Your task to perform on an android device: Is it going to rain this weekend? Image 0: 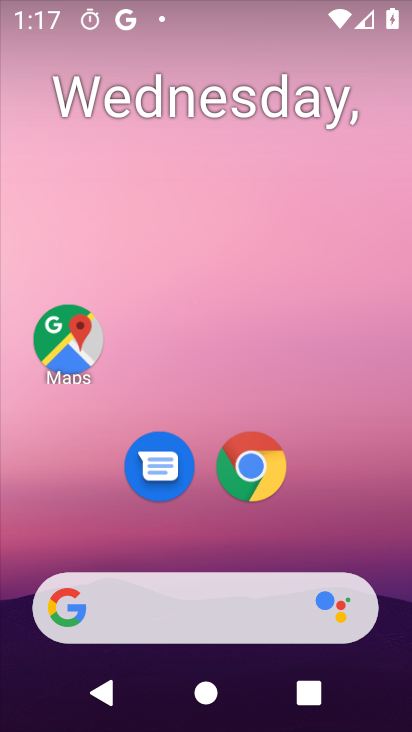
Step 0: drag from (312, 458) to (280, 21)
Your task to perform on an android device: Is it going to rain this weekend? Image 1: 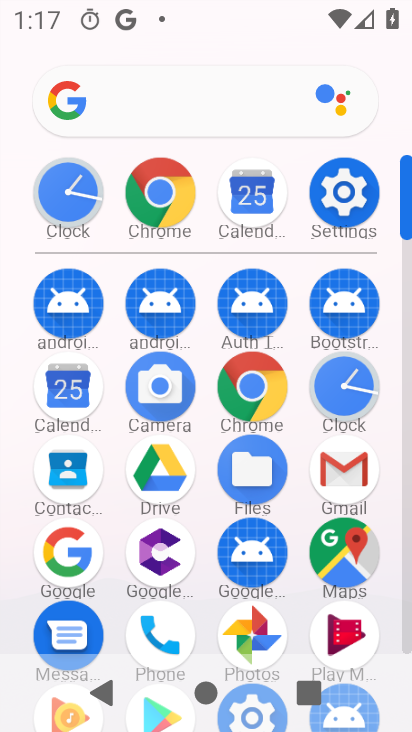
Step 1: click (168, 438)
Your task to perform on an android device: Is it going to rain this weekend? Image 2: 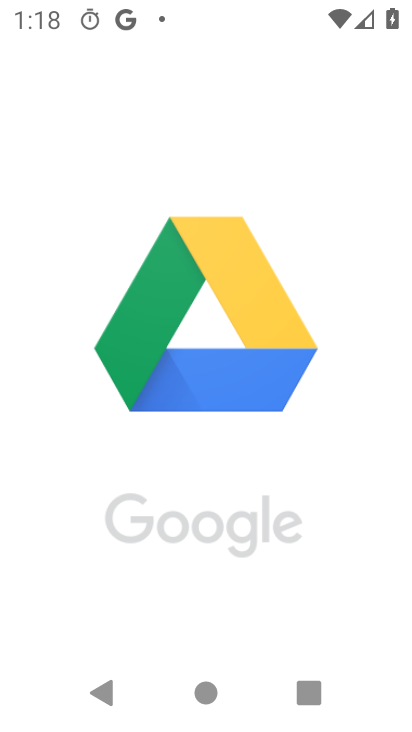
Step 2: press home button
Your task to perform on an android device: Is it going to rain this weekend? Image 3: 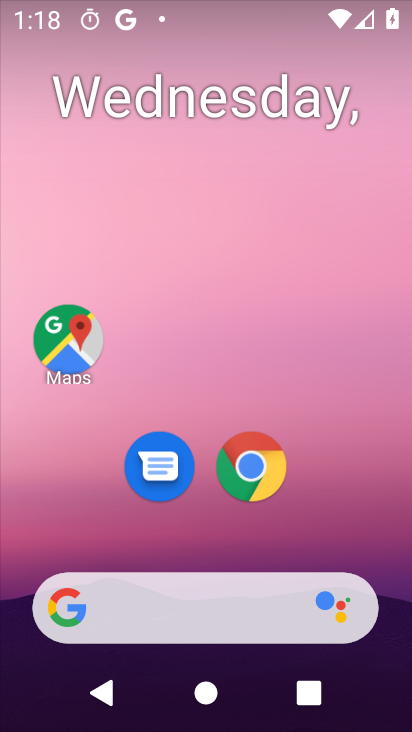
Step 3: click (103, 581)
Your task to perform on an android device: Is it going to rain this weekend? Image 4: 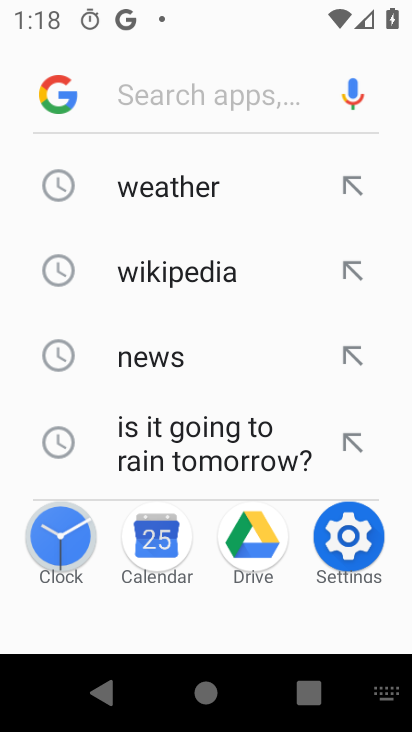
Step 4: click (173, 202)
Your task to perform on an android device: Is it going to rain this weekend? Image 5: 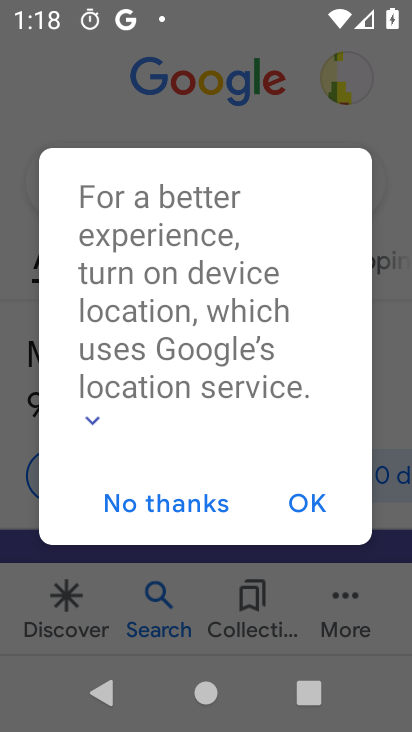
Step 5: click (286, 500)
Your task to perform on an android device: Is it going to rain this weekend? Image 6: 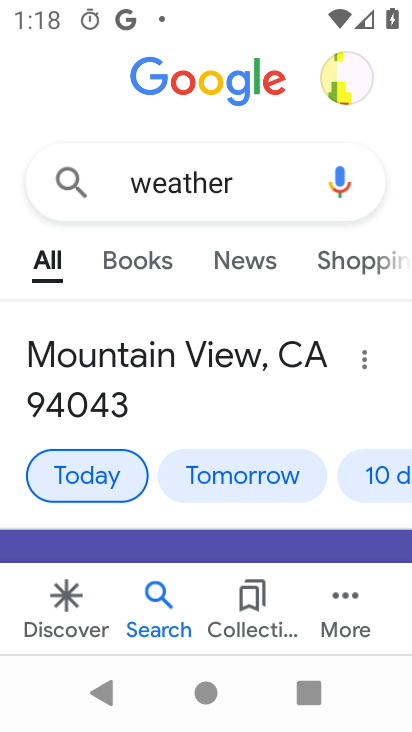
Step 6: drag from (318, 494) to (317, 237)
Your task to perform on an android device: Is it going to rain this weekend? Image 7: 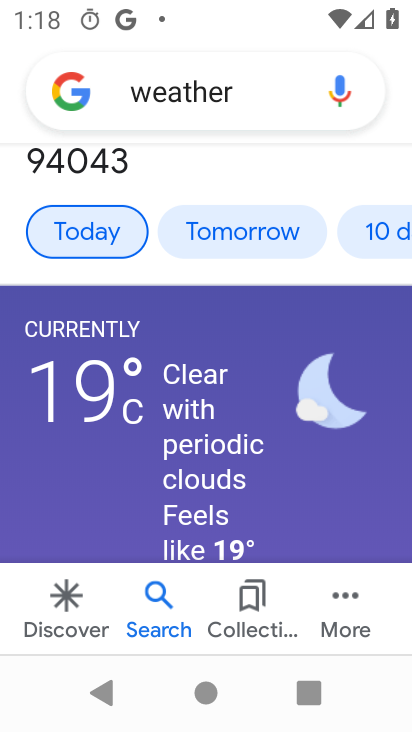
Step 7: drag from (379, 226) to (216, 225)
Your task to perform on an android device: Is it going to rain this weekend? Image 8: 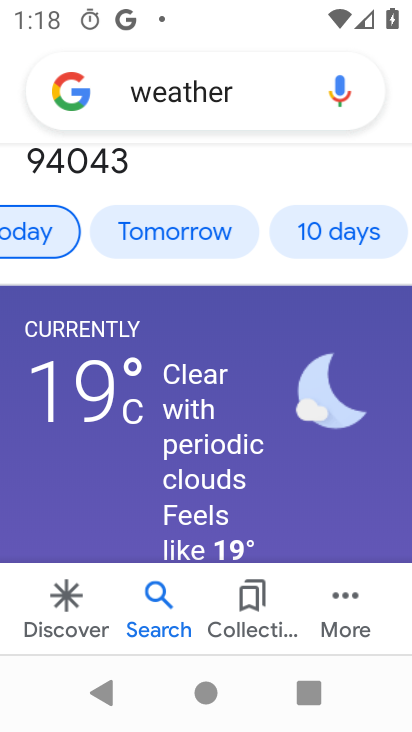
Step 8: click (334, 235)
Your task to perform on an android device: Is it going to rain this weekend? Image 9: 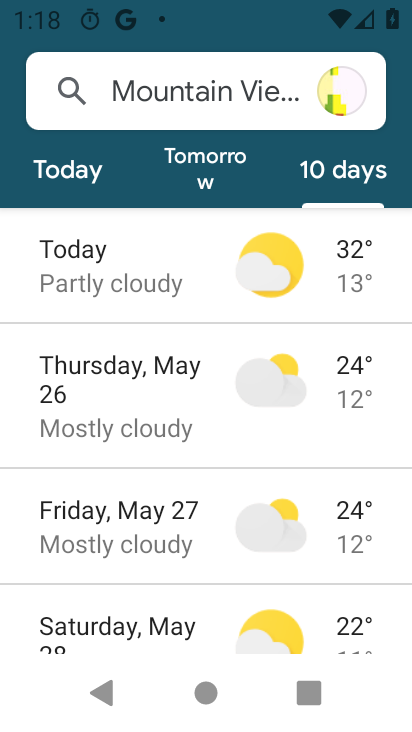
Step 9: task complete